Your task to perform on an android device: Search for vegetarian restaurants on Maps Image 0: 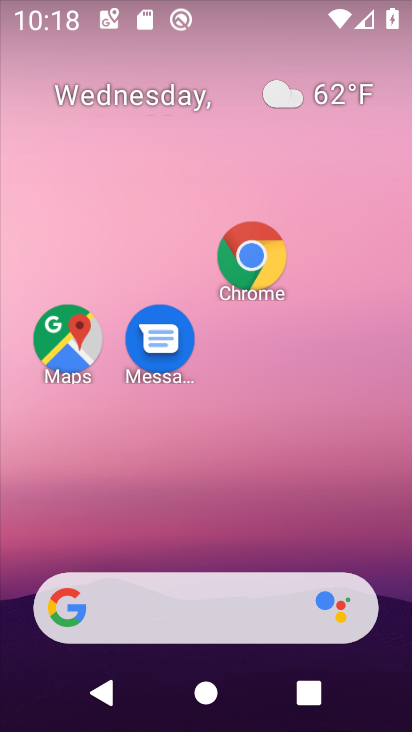
Step 0: click (67, 343)
Your task to perform on an android device: Search for vegetarian restaurants on Maps Image 1: 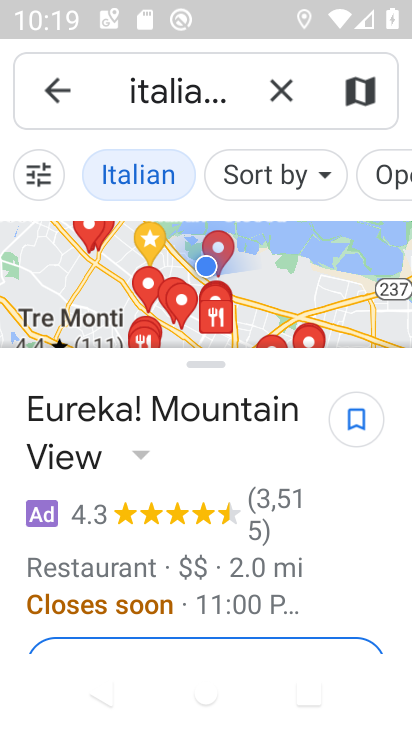
Step 1: click (291, 89)
Your task to perform on an android device: Search for vegetarian restaurants on Maps Image 2: 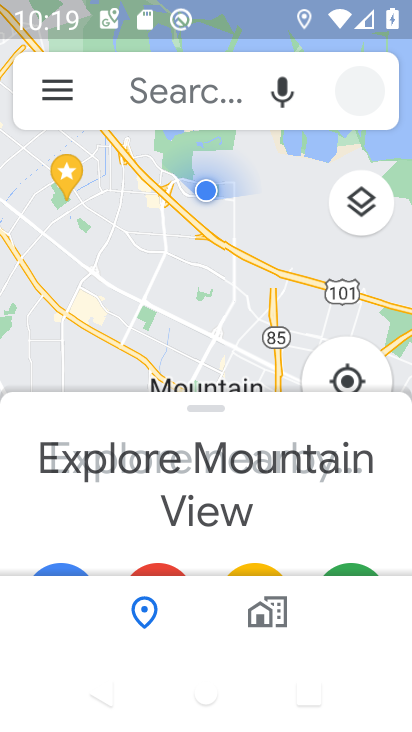
Step 2: click (166, 99)
Your task to perform on an android device: Search for vegetarian restaurants on Maps Image 3: 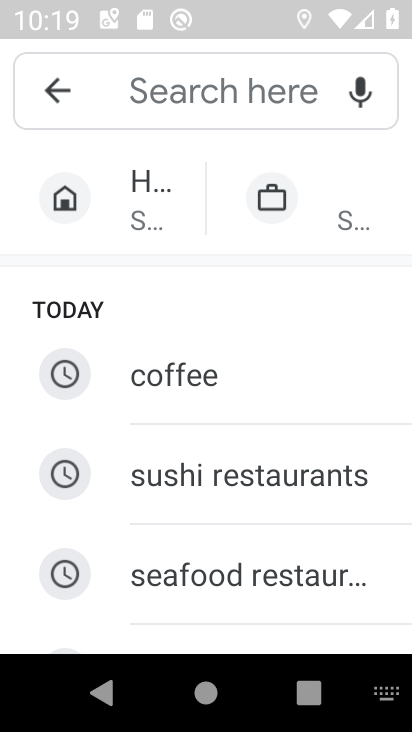
Step 3: drag from (255, 509) to (281, 168)
Your task to perform on an android device: Search for vegetarian restaurants on Maps Image 4: 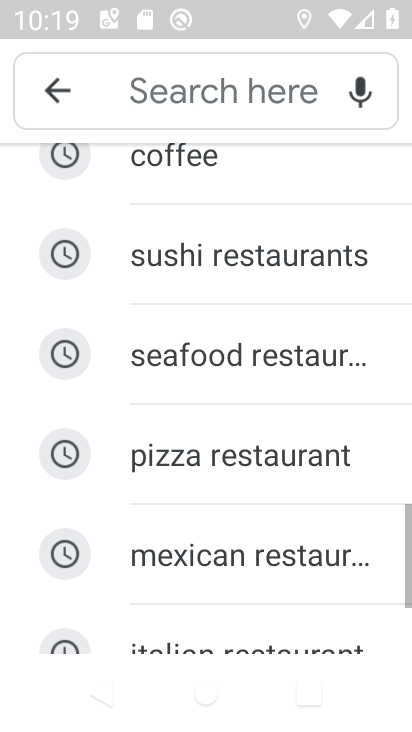
Step 4: drag from (218, 557) to (208, 181)
Your task to perform on an android device: Search for vegetarian restaurants on Maps Image 5: 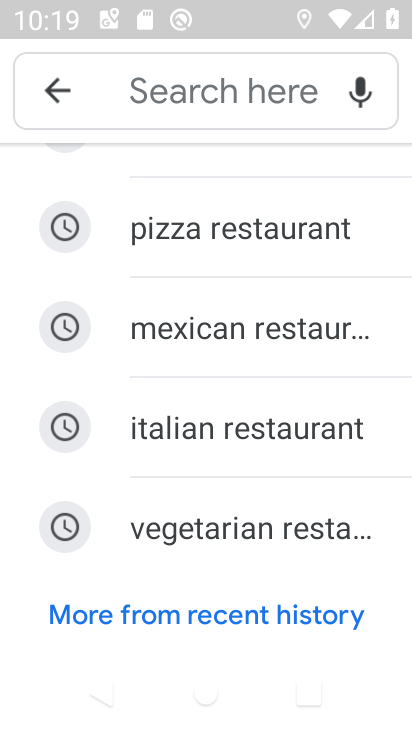
Step 5: click (164, 537)
Your task to perform on an android device: Search for vegetarian restaurants on Maps Image 6: 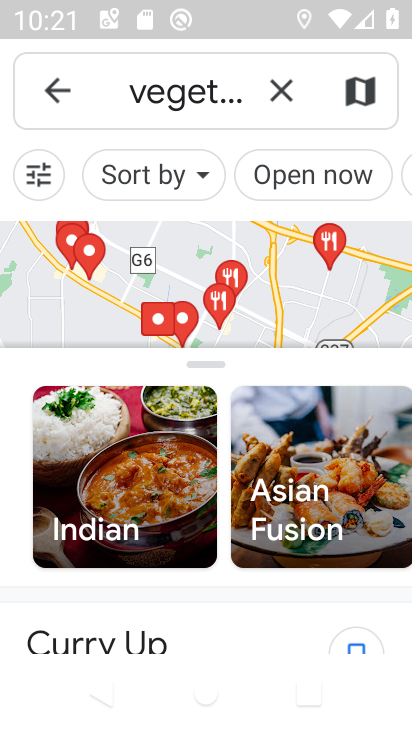
Step 6: task complete